Your task to perform on an android device: turn on sleep mode Image 0: 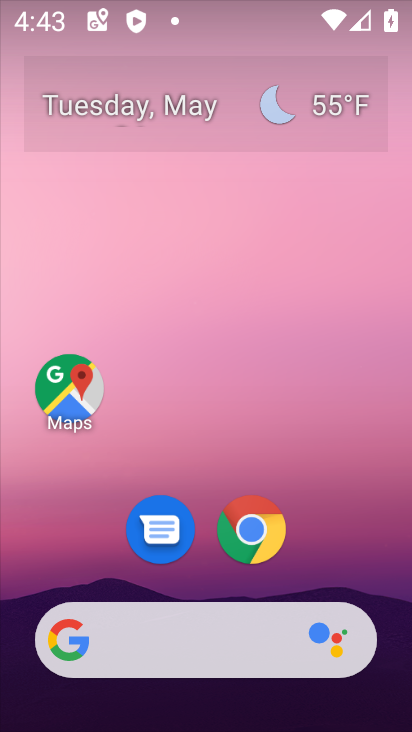
Step 0: click (148, 110)
Your task to perform on an android device: turn on sleep mode Image 1: 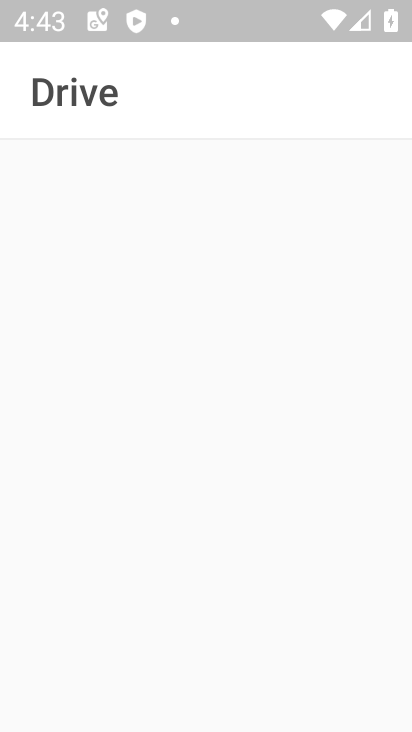
Step 1: press back button
Your task to perform on an android device: turn on sleep mode Image 2: 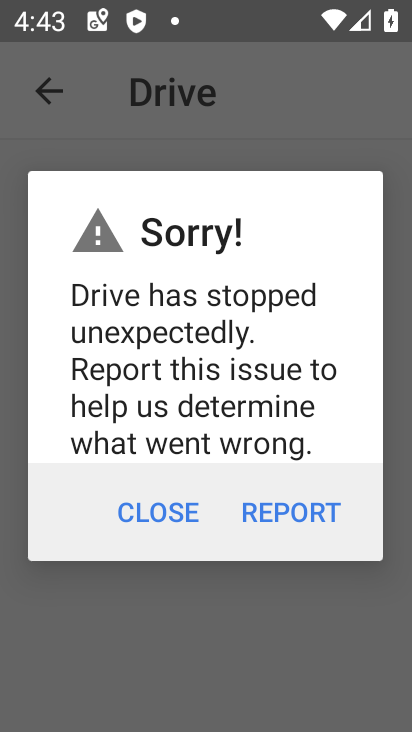
Step 2: press back button
Your task to perform on an android device: turn on sleep mode Image 3: 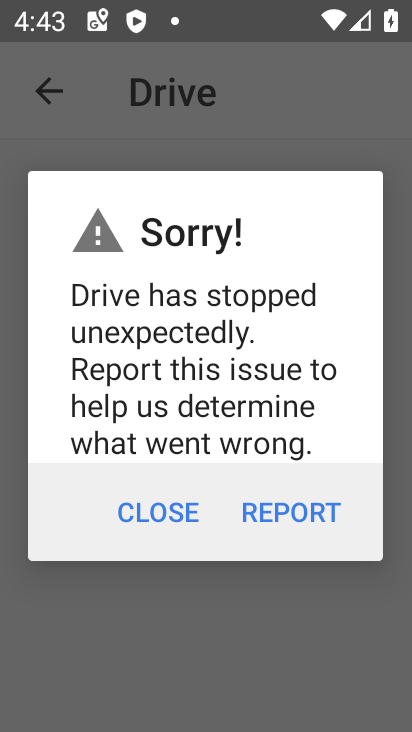
Step 3: click (181, 508)
Your task to perform on an android device: turn on sleep mode Image 4: 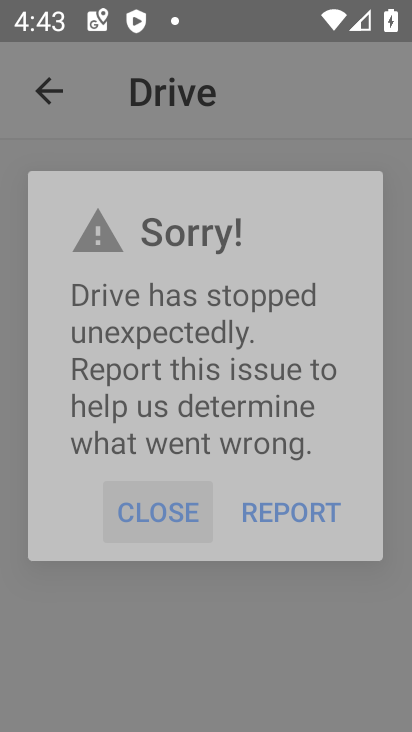
Step 4: click (179, 501)
Your task to perform on an android device: turn on sleep mode Image 5: 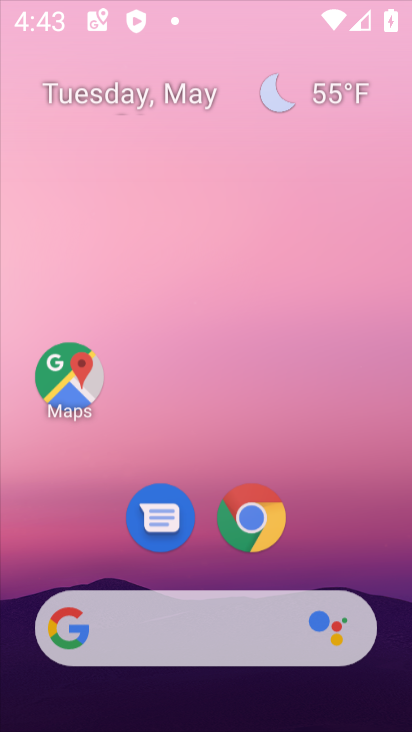
Step 5: click (174, 507)
Your task to perform on an android device: turn on sleep mode Image 6: 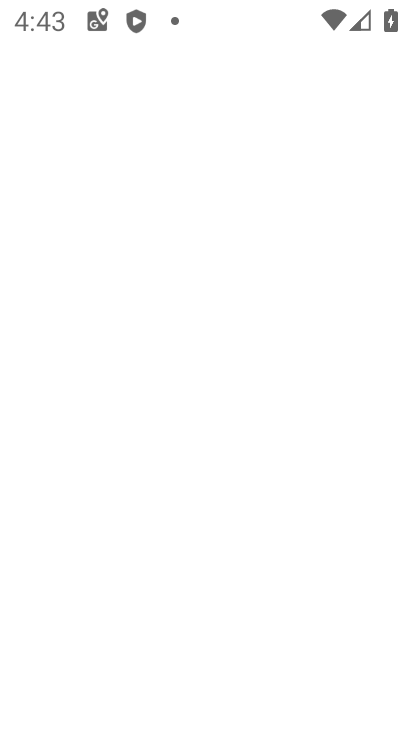
Step 6: drag from (338, 656) to (138, 105)
Your task to perform on an android device: turn on sleep mode Image 7: 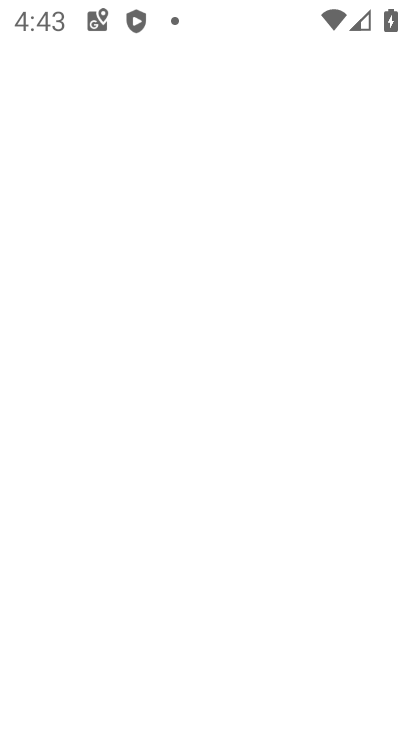
Step 7: press back button
Your task to perform on an android device: turn on sleep mode Image 8: 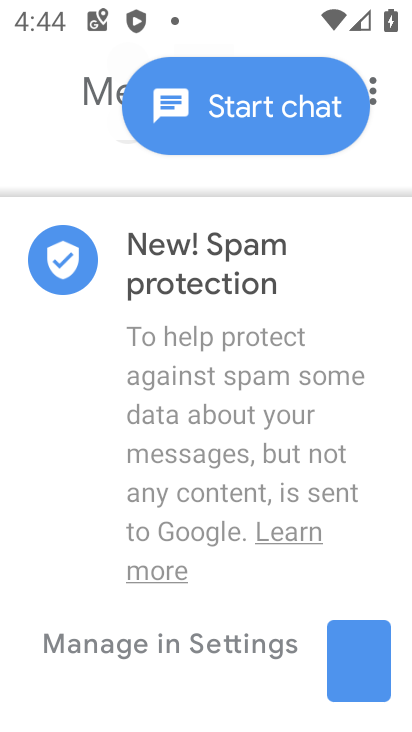
Step 8: press back button
Your task to perform on an android device: turn on sleep mode Image 9: 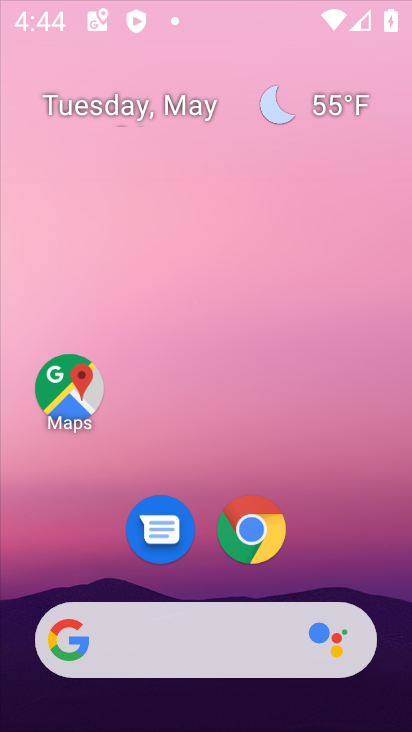
Step 9: press back button
Your task to perform on an android device: turn on sleep mode Image 10: 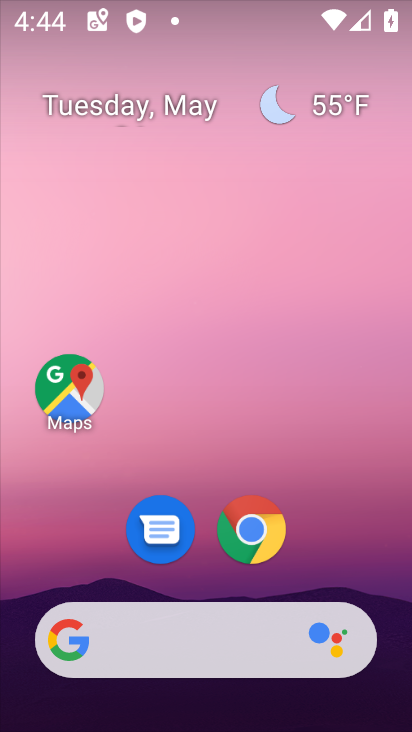
Step 10: press home button
Your task to perform on an android device: turn on sleep mode Image 11: 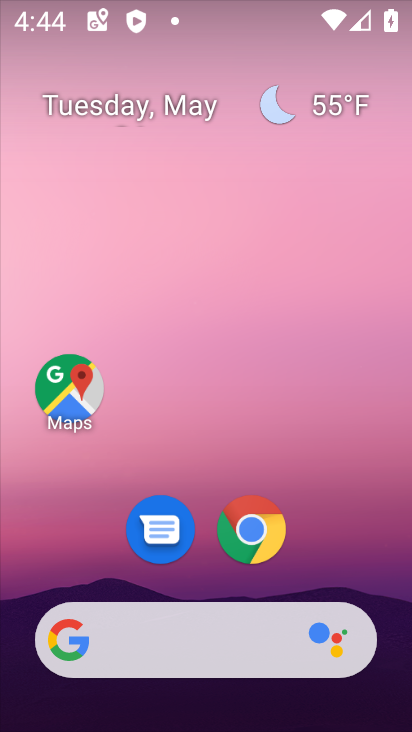
Step 11: drag from (176, 51) to (238, 21)
Your task to perform on an android device: turn on sleep mode Image 12: 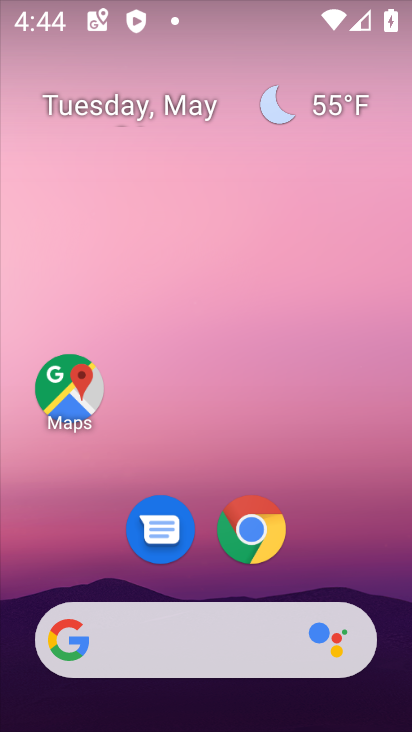
Step 12: drag from (343, 701) to (189, 82)
Your task to perform on an android device: turn on sleep mode Image 13: 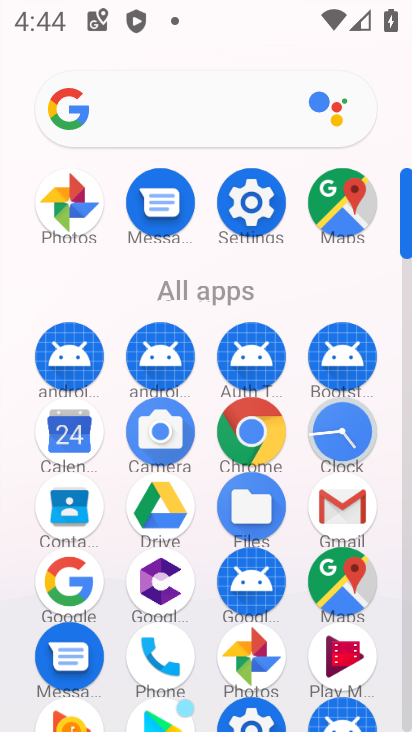
Step 13: click (249, 200)
Your task to perform on an android device: turn on sleep mode Image 14: 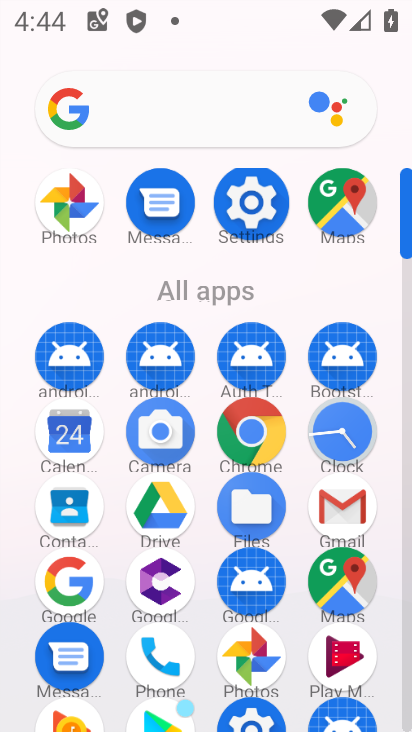
Step 14: click (250, 200)
Your task to perform on an android device: turn on sleep mode Image 15: 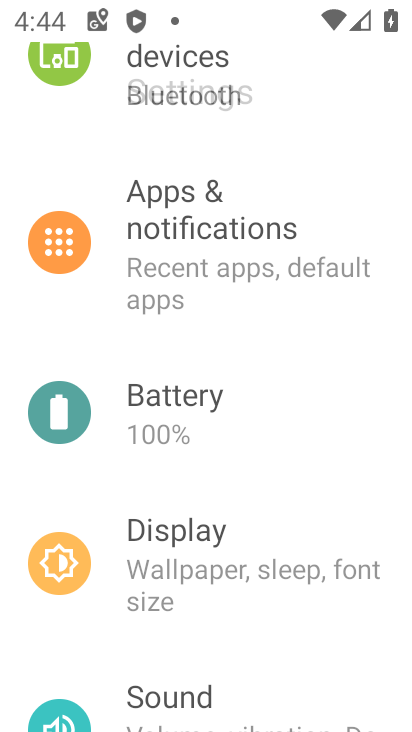
Step 15: click (251, 199)
Your task to perform on an android device: turn on sleep mode Image 16: 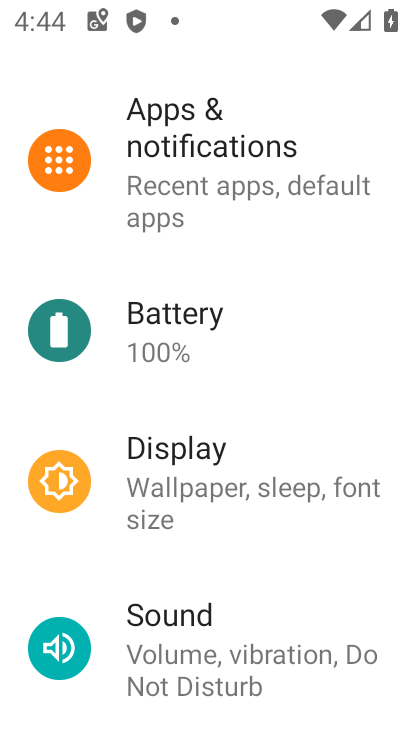
Step 16: click (251, 199)
Your task to perform on an android device: turn on sleep mode Image 17: 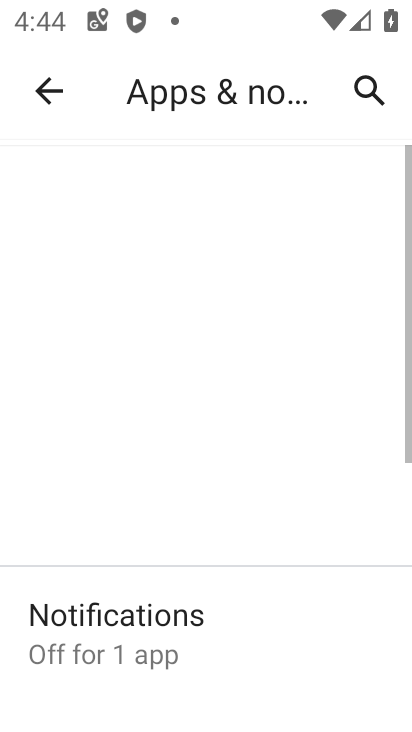
Step 17: drag from (241, 590) to (239, 267)
Your task to perform on an android device: turn on sleep mode Image 18: 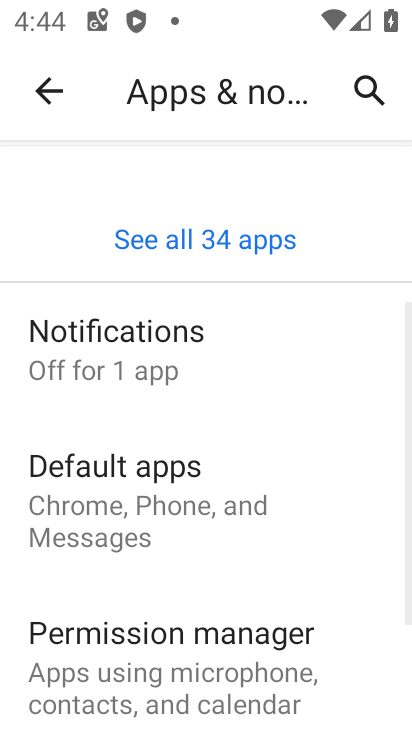
Step 18: click (36, 96)
Your task to perform on an android device: turn on sleep mode Image 19: 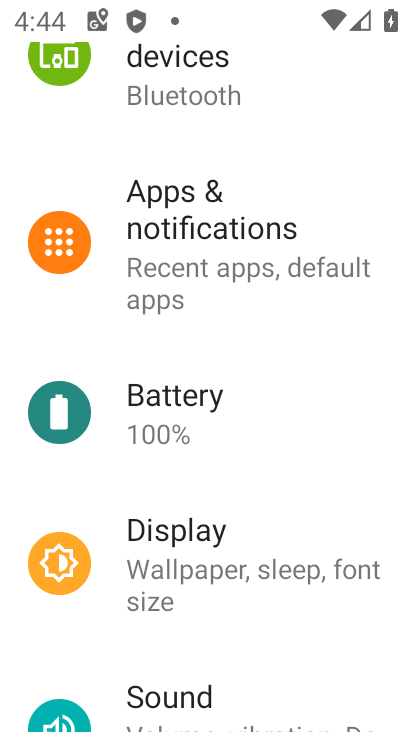
Step 19: drag from (231, 649) to (159, 257)
Your task to perform on an android device: turn on sleep mode Image 20: 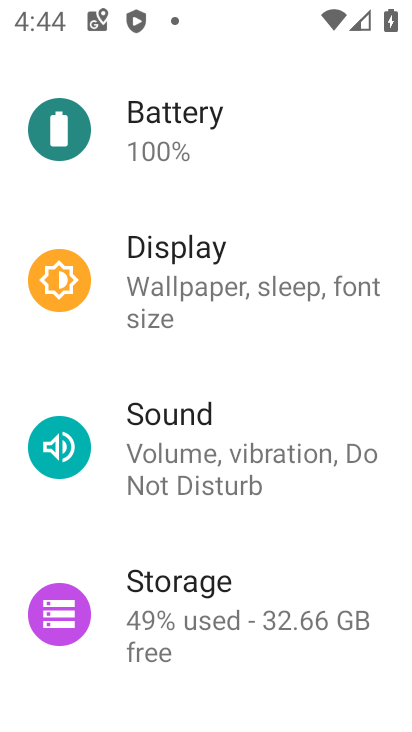
Step 20: drag from (238, 576) to (223, 243)
Your task to perform on an android device: turn on sleep mode Image 21: 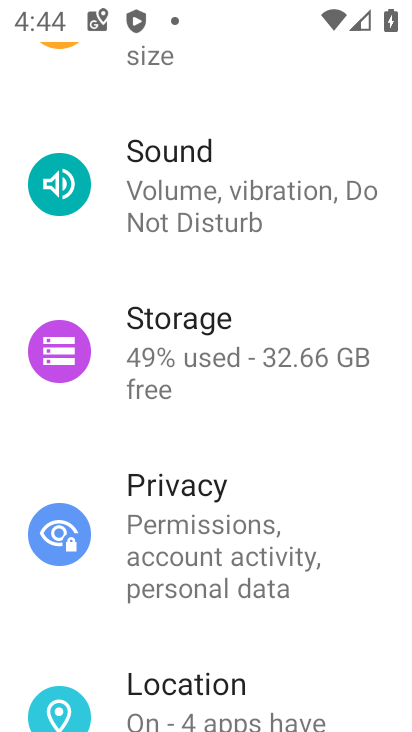
Step 21: drag from (277, 508) to (292, 112)
Your task to perform on an android device: turn on sleep mode Image 22: 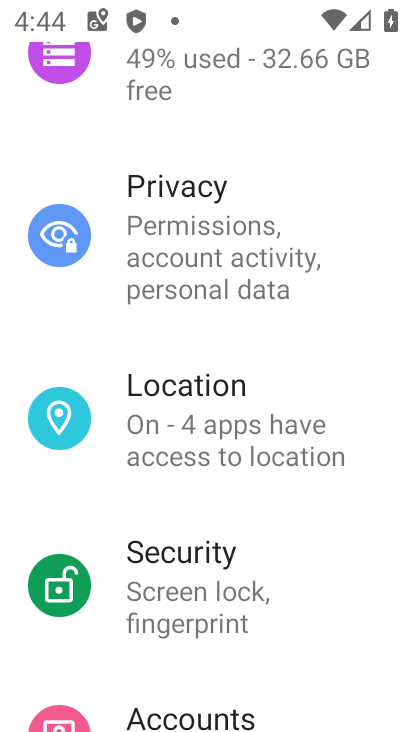
Step 22: drag from (265, 455) to (256, 299)
Your task to perform on an android device: turn on sleep mode Image 23: 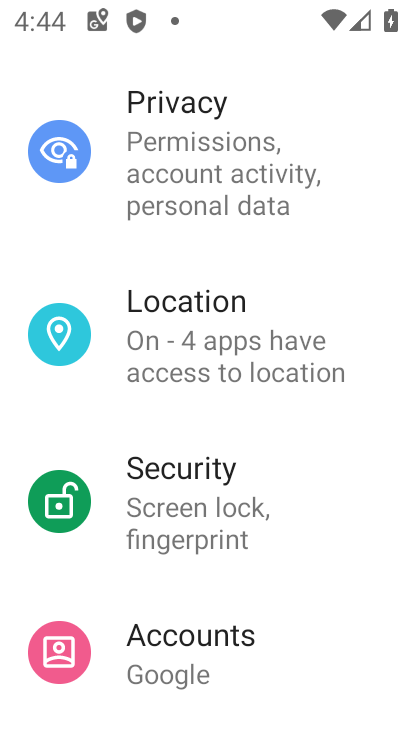
Step 23: drag from (190, 356) to (219, 613)
Your task to perform on an android device: turn on sleep mode Image 24: 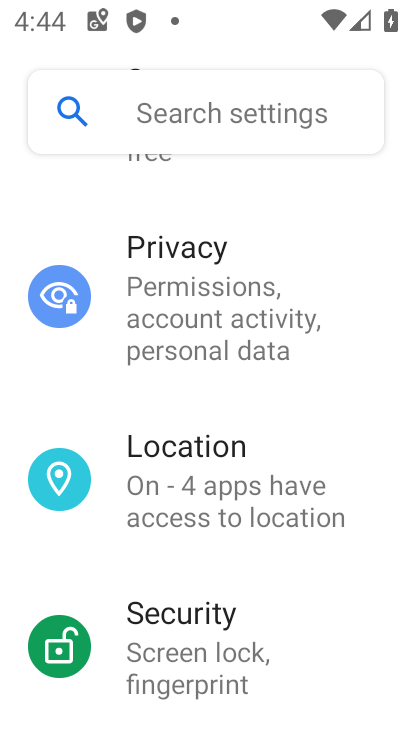
Step 24: drag from (141, 276) to (315, 689)
Your task to perform on an android device: turn on sleep mode Image 25: 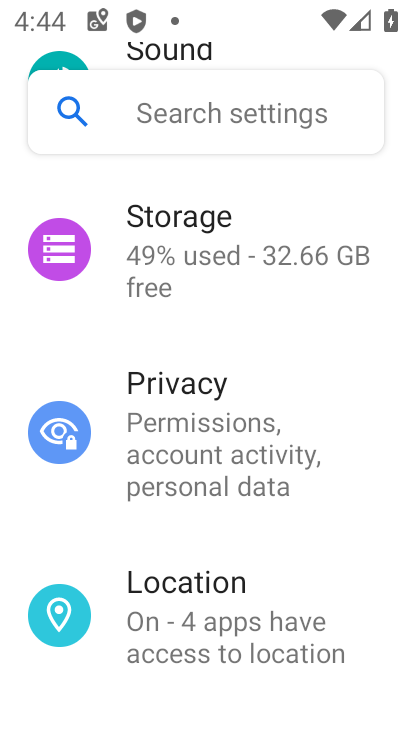
Step 25: drag from (241, 444) to (306, 711)
Your task to perform on an android device: turn on sleep mode Image 26: 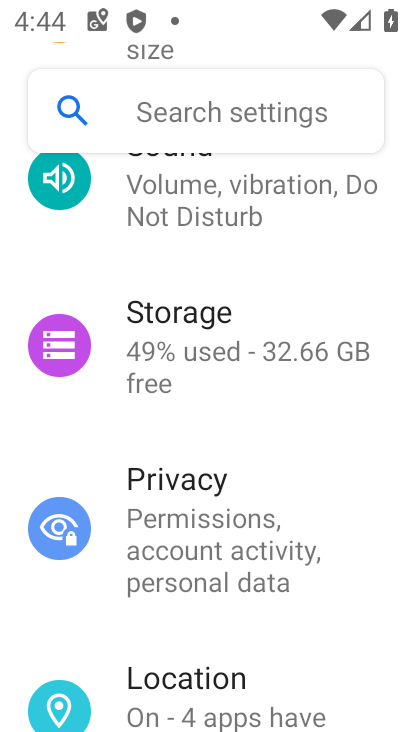
Step 26: drag from (171, 303) to (263, 652)
Your task to perform on an android device: turn on sleep mode Image 27: 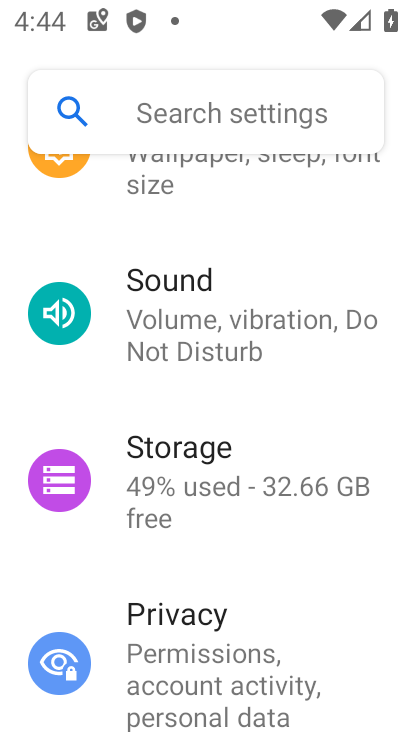
Step 27: drag from (220, 386) to (275, 599)
Your task to perform on an android device: turn on sleep mode Image 28: 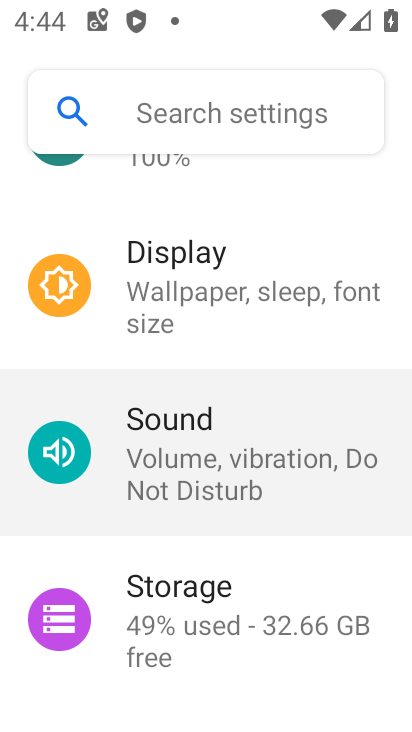
Step 28: drag from (238, 331) to (313, 665)
Your task to perform on an android device: turn on sleep mode Image 29: 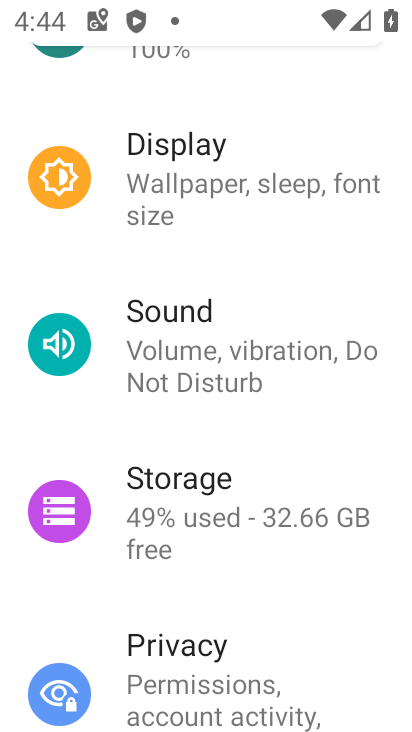
Step 29: click (178, 187)
Your task to perform on an android device: turn on sleep mode Image 30: 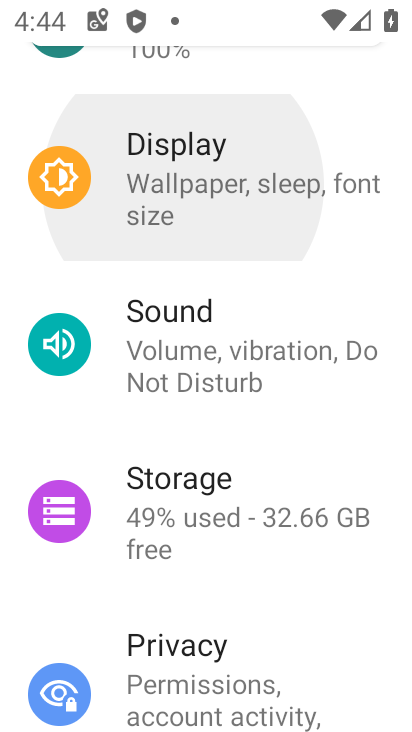
Step 30: click (180, 185)
Your task to perform on an android device: turn on sleep mode Image 31: 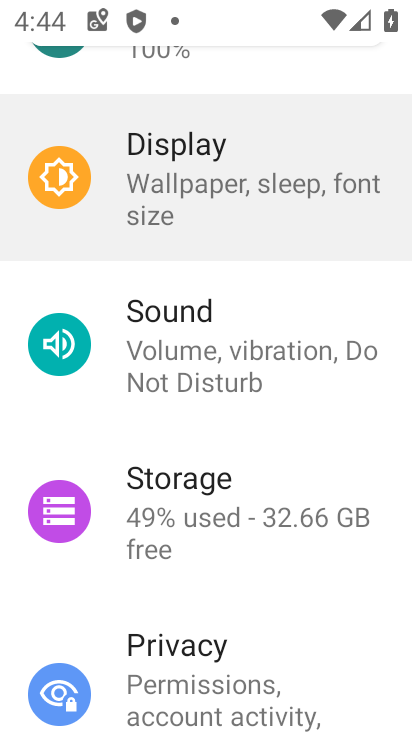
Step 31: click (180, 185)
Your task to perform on an android device: turn on sleep mode Image 32: 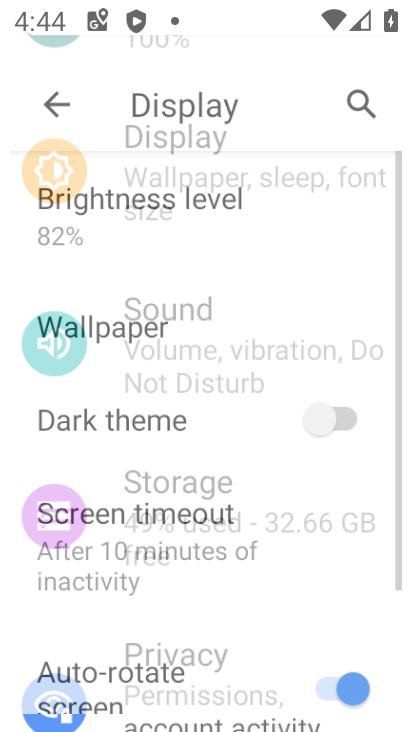
Step 32: click (180, 185)
Your task to perform on an android device: turn on sleep mode Image 33: 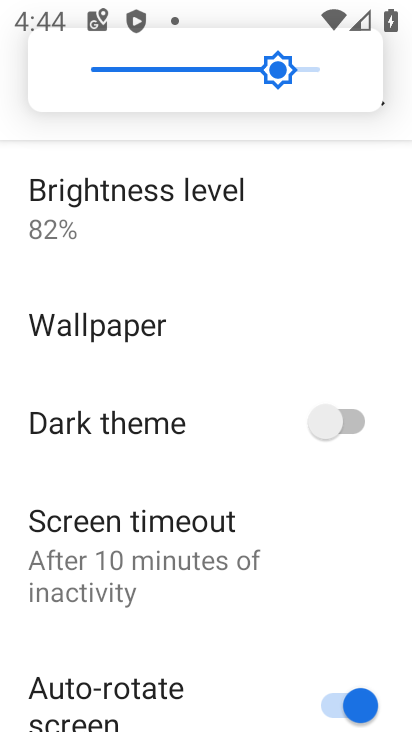
Step 33: click (120, 528)
Your task to perform on an android device: turn on sleep mode Image 34: 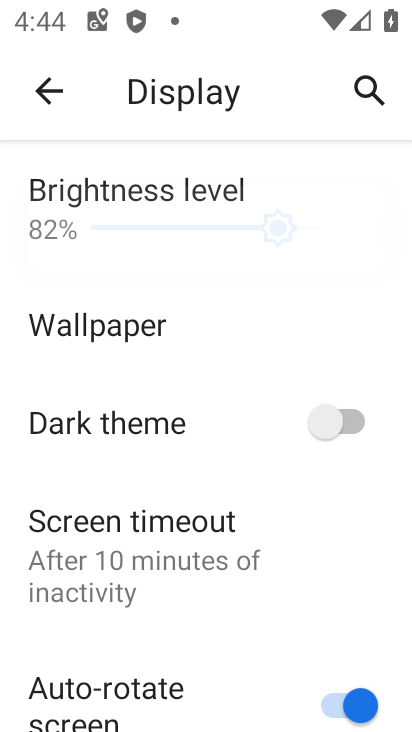
Step 34: click (105, 565)
Your task to perform on an android device: turn on sleep mode Image 35: 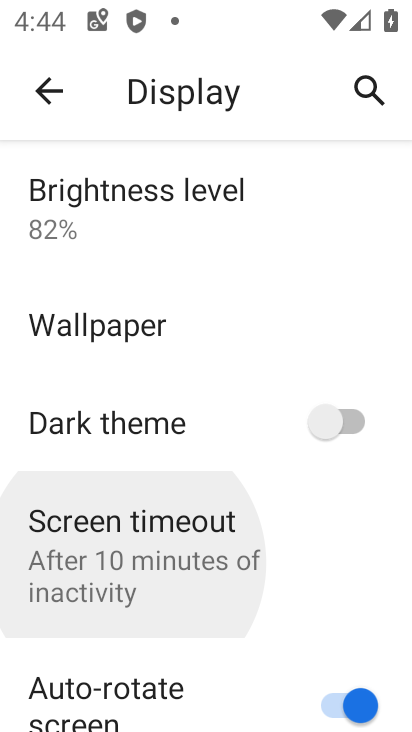
Step 35: click (104, 564)
Your task to perform on an android device: turn on sleep mode Image 36: 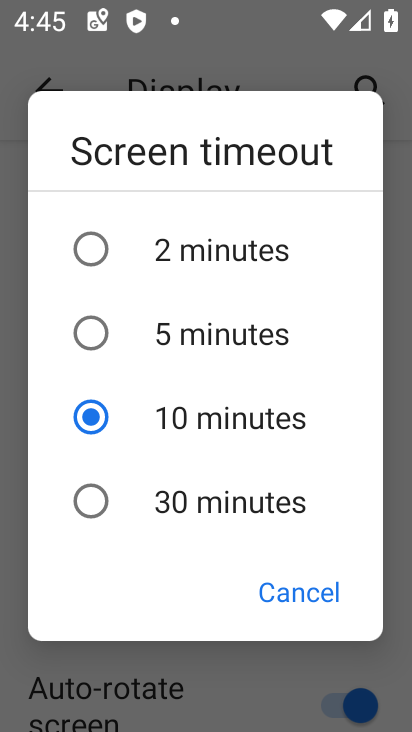
Step 36: click (99, 416)
Your task to perform on an android device: turn on sleep mode Image 37: 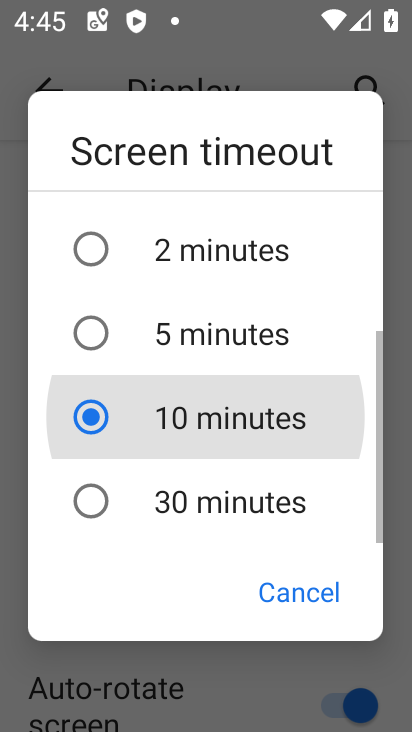
Step 37: click (100, 414)
Your task to perform on an android device: turn on sleep mode Image 38: 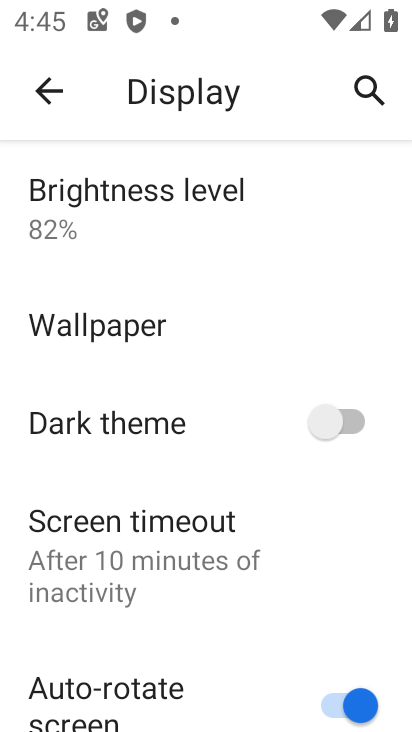
Step 38: click (100, 414)
Your task to perform on an android device: turn on sleep mode Image 39: 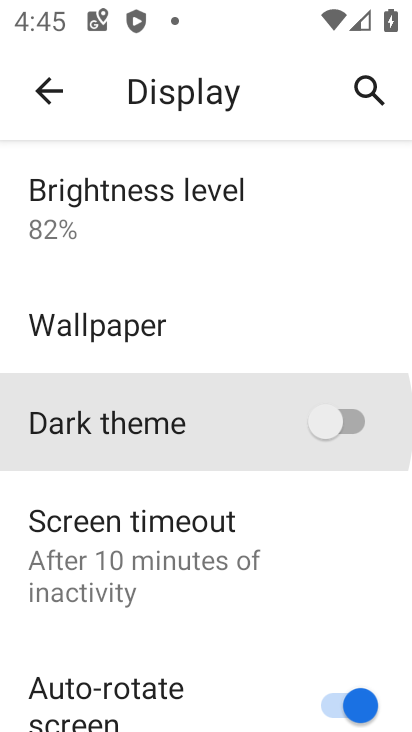
Step 39: click (101, 414)
Your task to perform on an android device: turn on sleep mode Image 40: 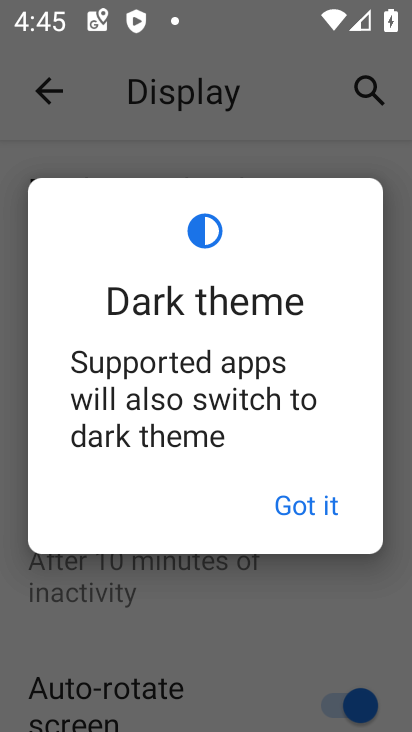
Step 40: click (279, 510)
Your task to perform on an android device: turn on sleep mode Image 41: 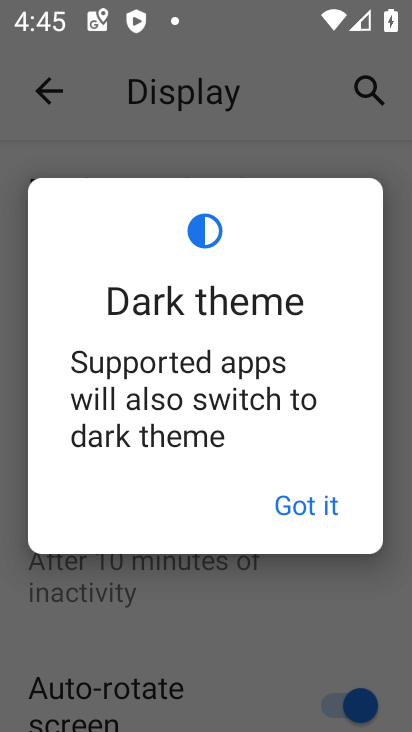
Step 41: click (279, 510)
Your task to perform on an android device: turn on sleep mode Image 42: 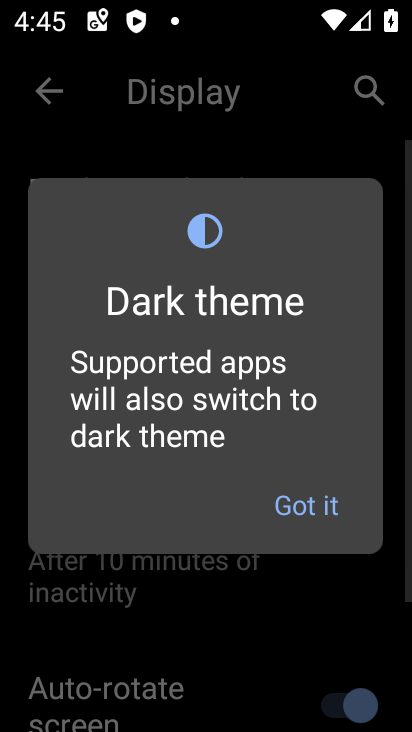
Step 42: click (295, 505)
Your task to perform on an android device: turn on sleep mode Image 43: 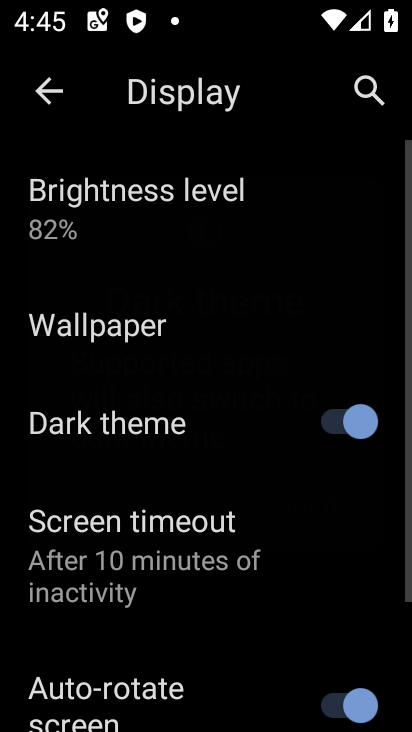
Step 43: click (295, 505)
Your task to perform on an android device: turn on sleep mode Image 44: 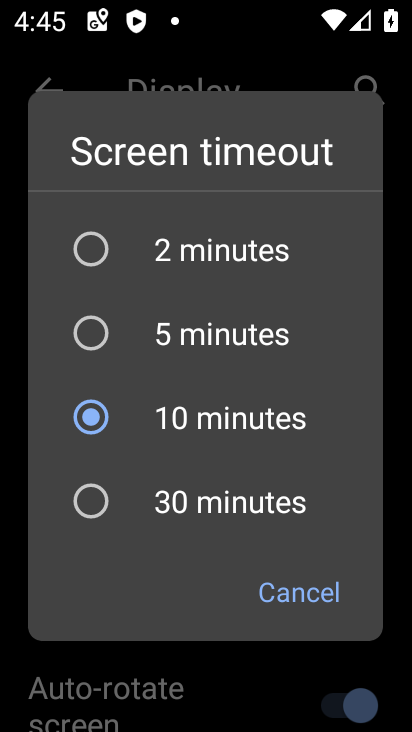
Step 44: click (304, 587)
Your task to perform on an android device: turn on sleep mode Image 45: 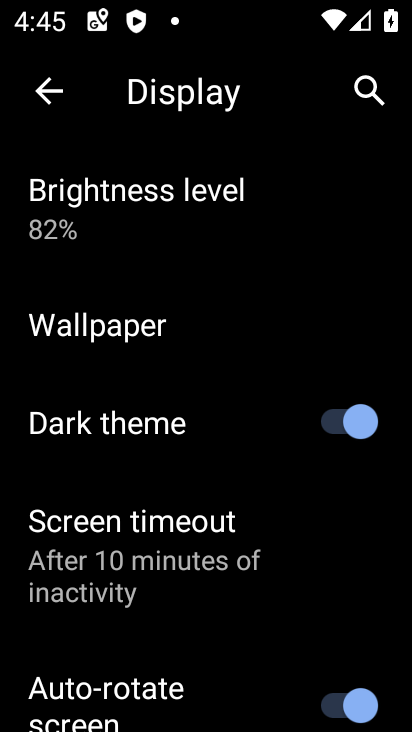
Step 45: click (360, 416)
Your task to perform on an android device: turn on sleep mode Image 46: 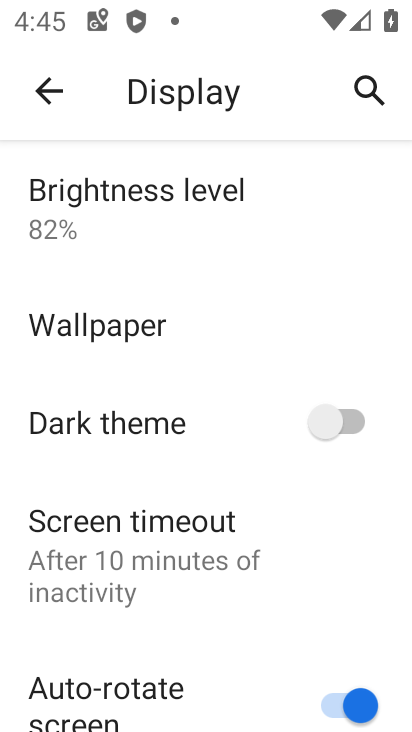
Step 46: task complete